Your task to perform on an android device: change text size in settings app Image 0: 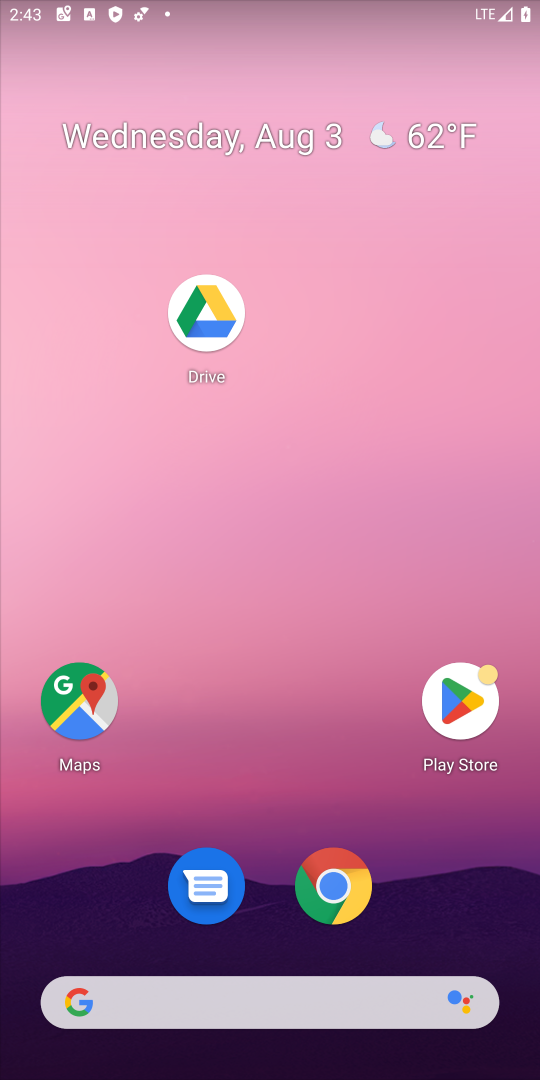
Step 0: drag from (191, 700) to (188, 4)
Your task to perform on an android device: change text size in settings app Image 1: 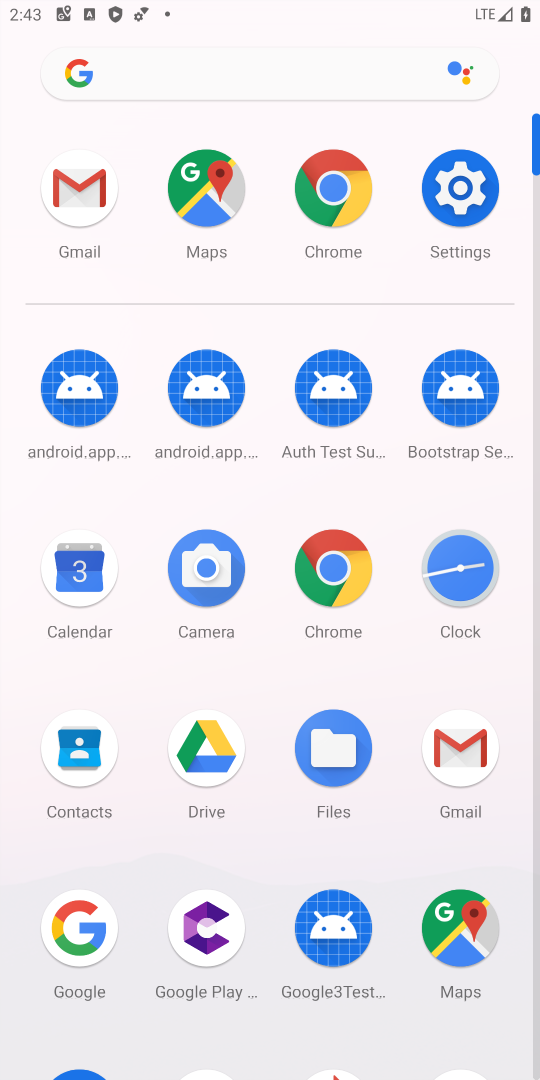
Step 1: click (460, 178)
Your task to perform on an android device: change text size in settings app Image 2: 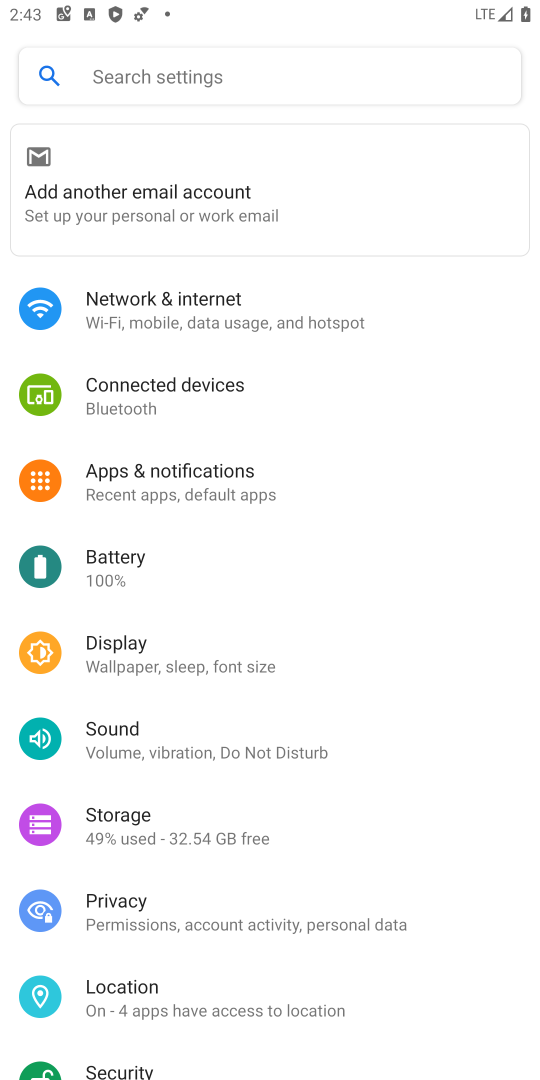
Step 2: drag from (249, 823) to (310, 5)
Your task to perform on an android device: change text size in settings app Image 3: 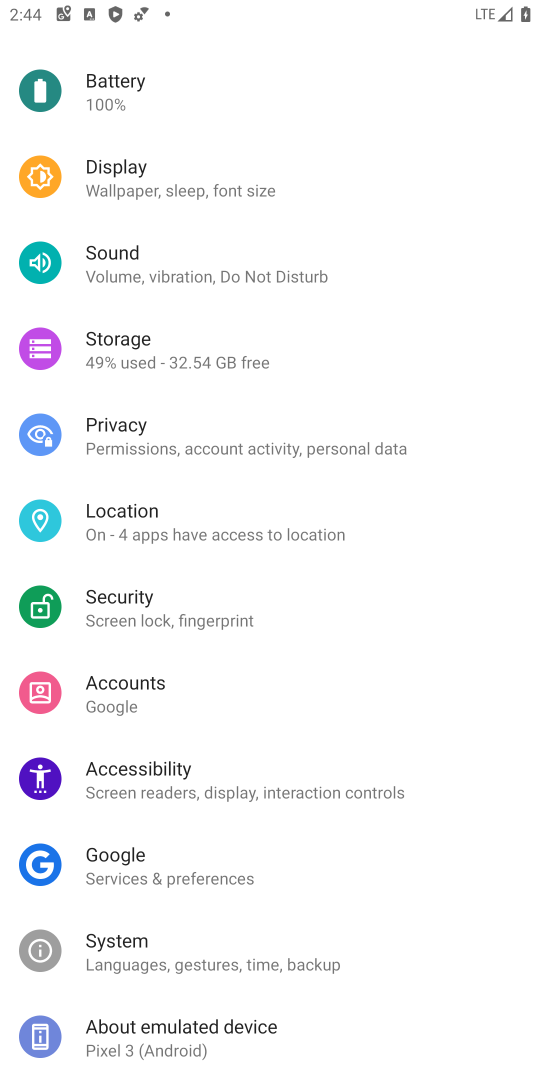
Step 3: click (184, 780)
Your task to perform on an android device: change text size in settings app Image 4: 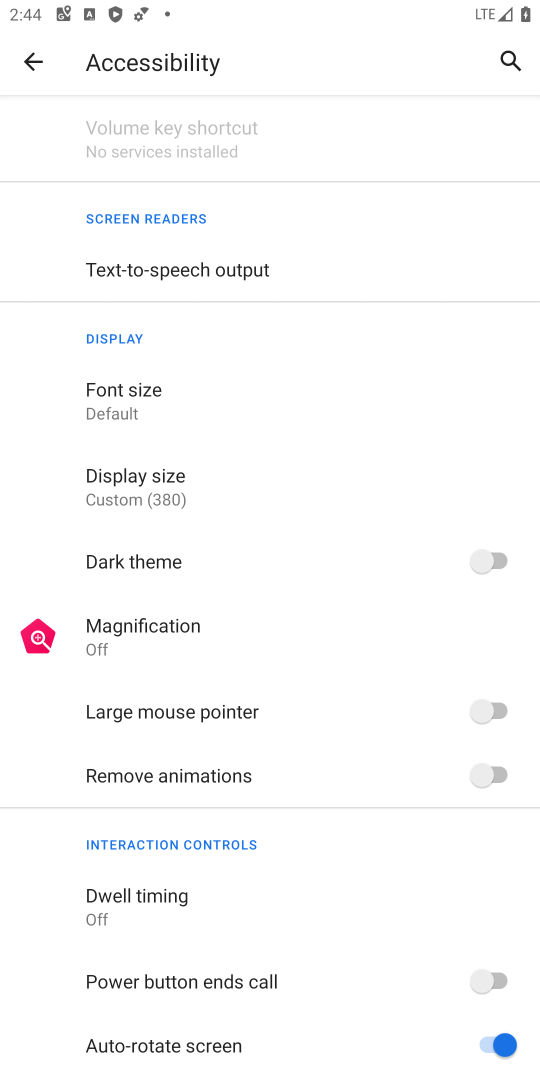
Step 4: click (164, 405)
Your task to perform on an android device: change text size in settings app Image 5: 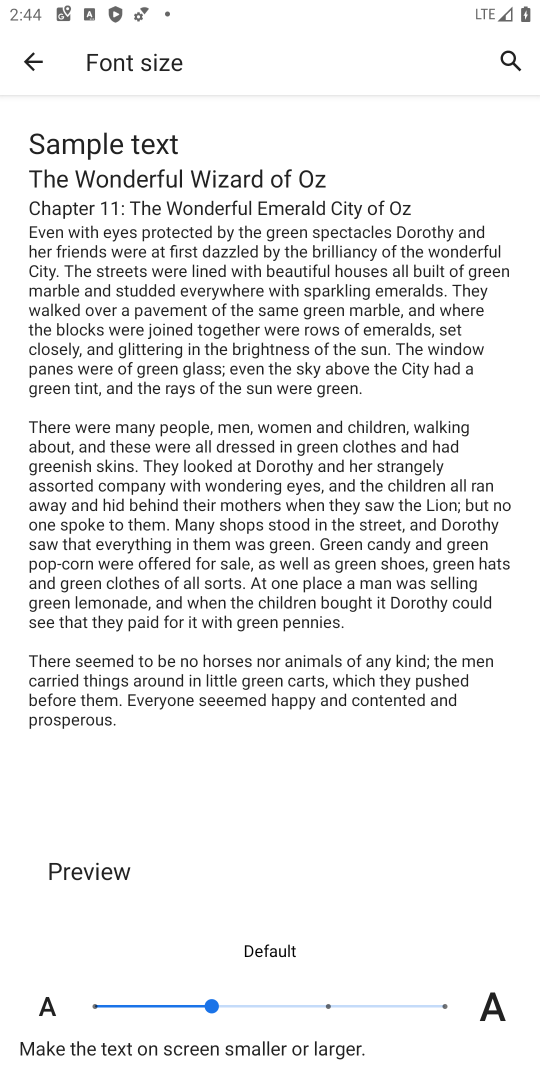
Step 5: click (326, 1004)
Your task to perform on an android device: change text size in settings app Image 6: 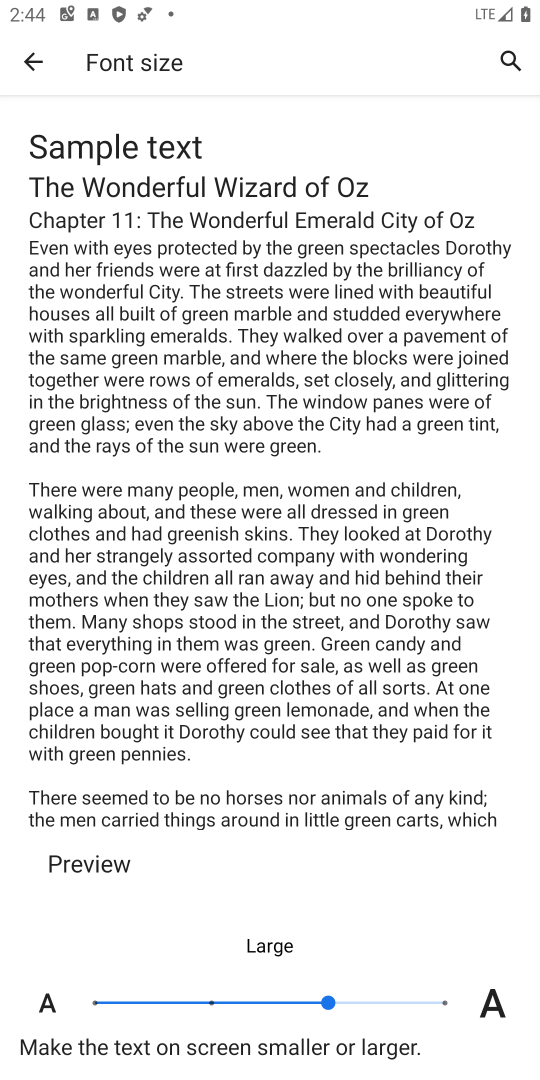
Step 6: task complete